Your task to perform on an android device: turn on javascript in the chrome app Image 0: 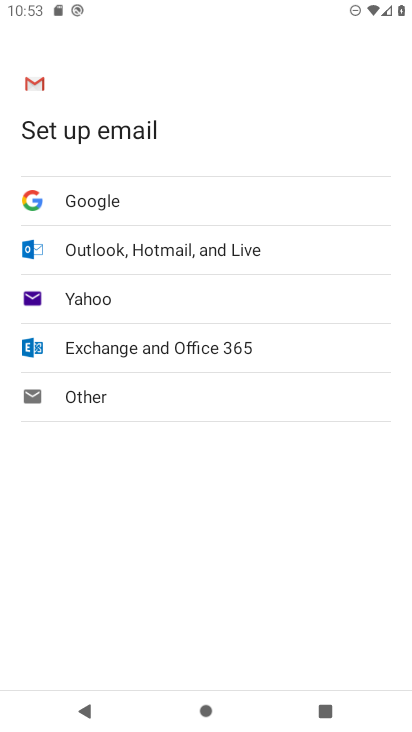
Step 0: press home button
Your task to perform on an android device: turn on javascript in the chrome app Image 1: 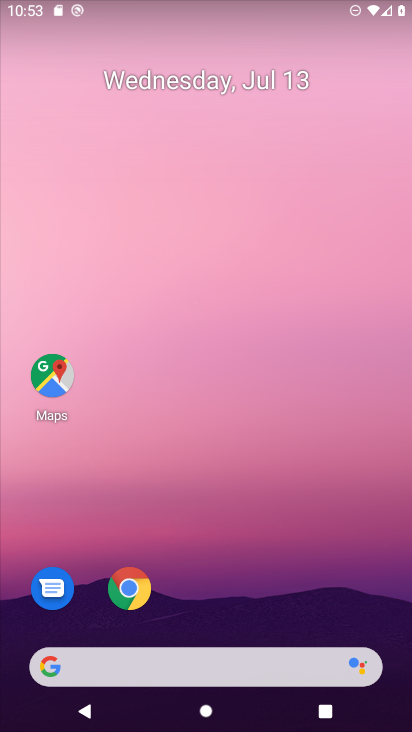
Step 1: click (125, 583)
Your task to perform on an android device: turn on javascript in the chrome app Image 2: 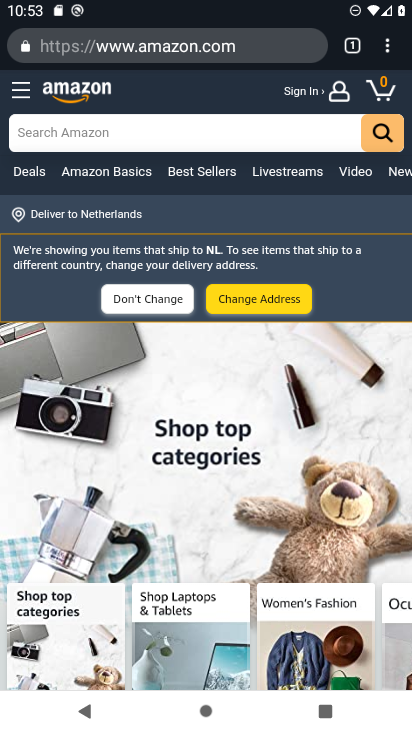
Step 2: click (386, 39)
Your task to perform on an android device: turn on javascript in the chrome app Image 3: 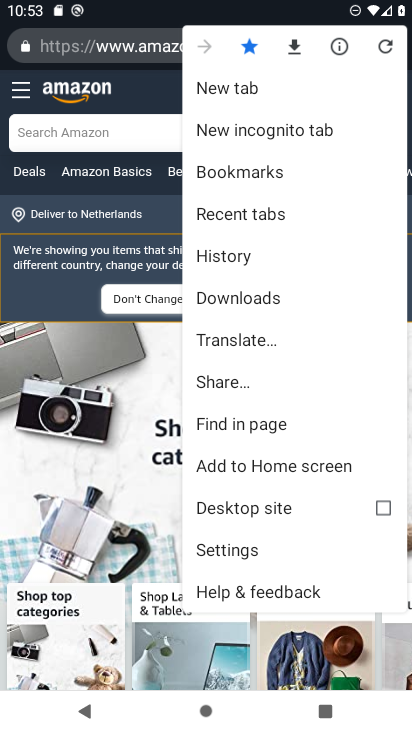
Step 3: click (234, 556)
Your task to perform on an android device: turn on javascript in the chrome app Image 4: 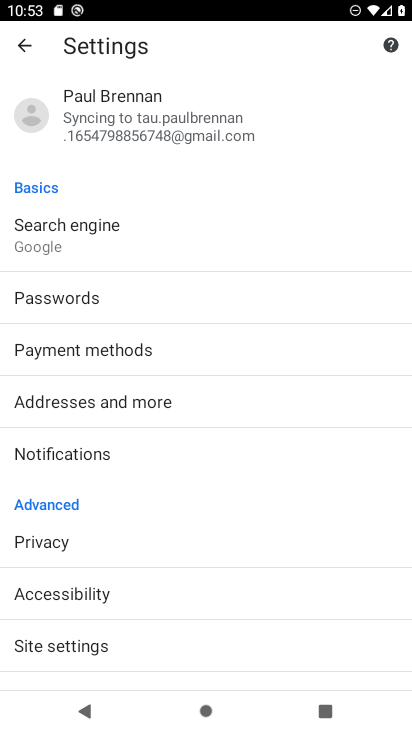
Step 4: click (98, 648)
Your task to perform on an android device: turn on javascript in the chrome app Image 5: 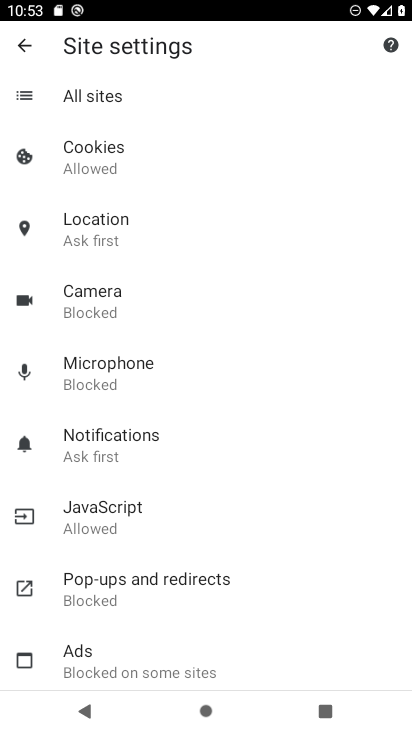
Step 5: click (115, 519)
Your task to perform on an android device: turn on javascript in the chrome app Image 6: 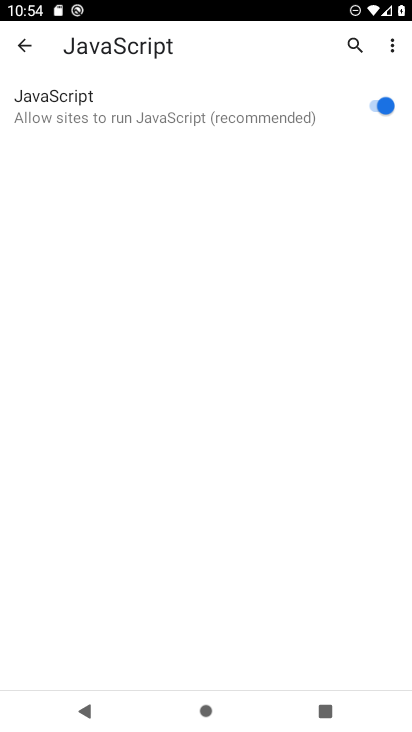
Step 6: task complete